Your task to perform on an android device: uninstall "Google Find My Device" Image 0: 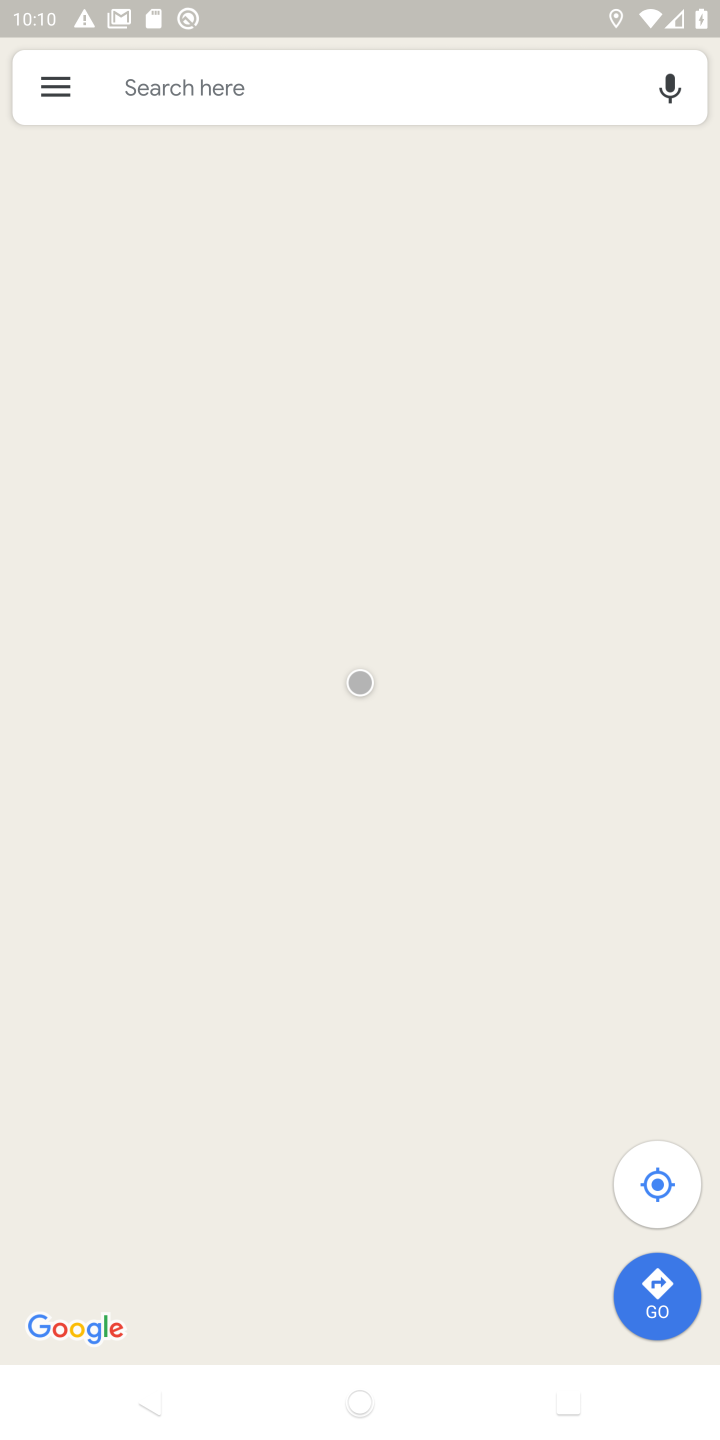
Step 0: press home button
Your task to perform on an android device: uninstall "Google Find My Device" Image 1: 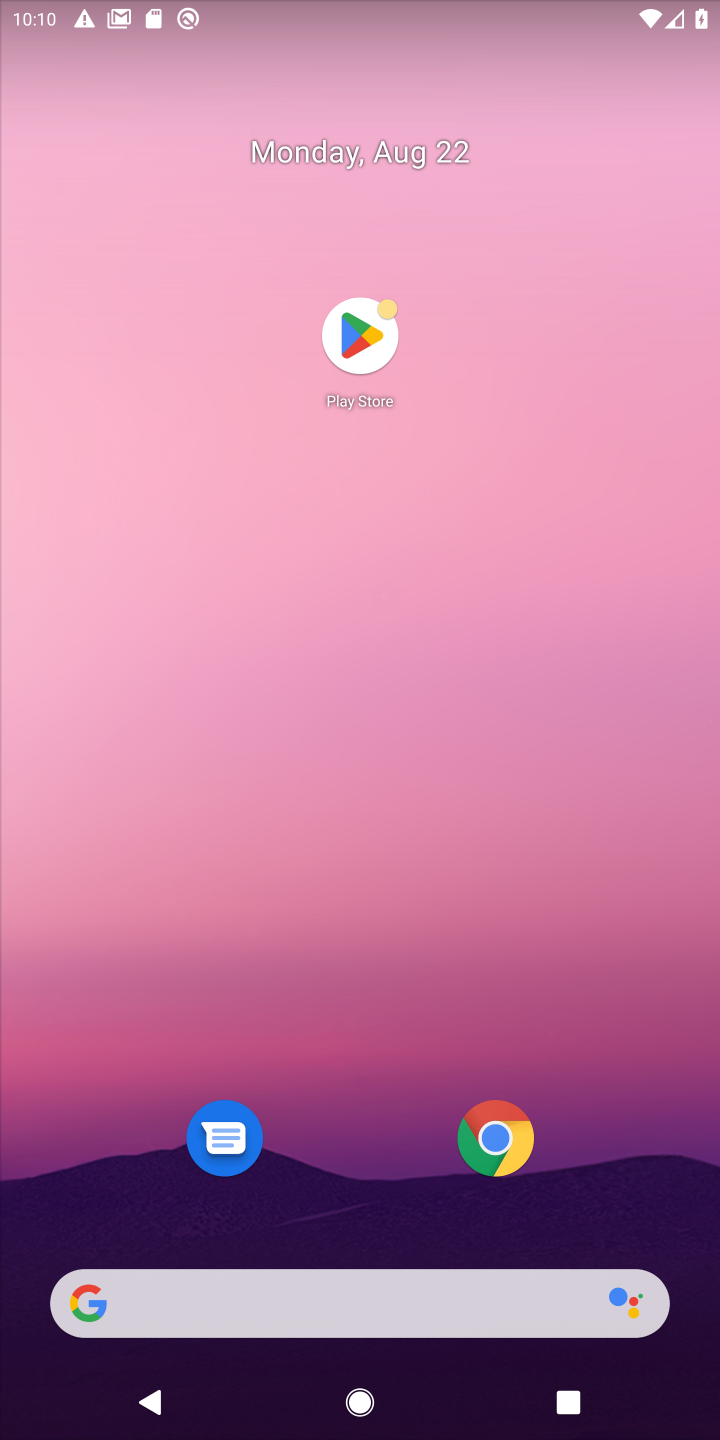
Step 1: click (339, 353)
Your task to perform on an android device: uninstall "Google Find My Device" Image 2: 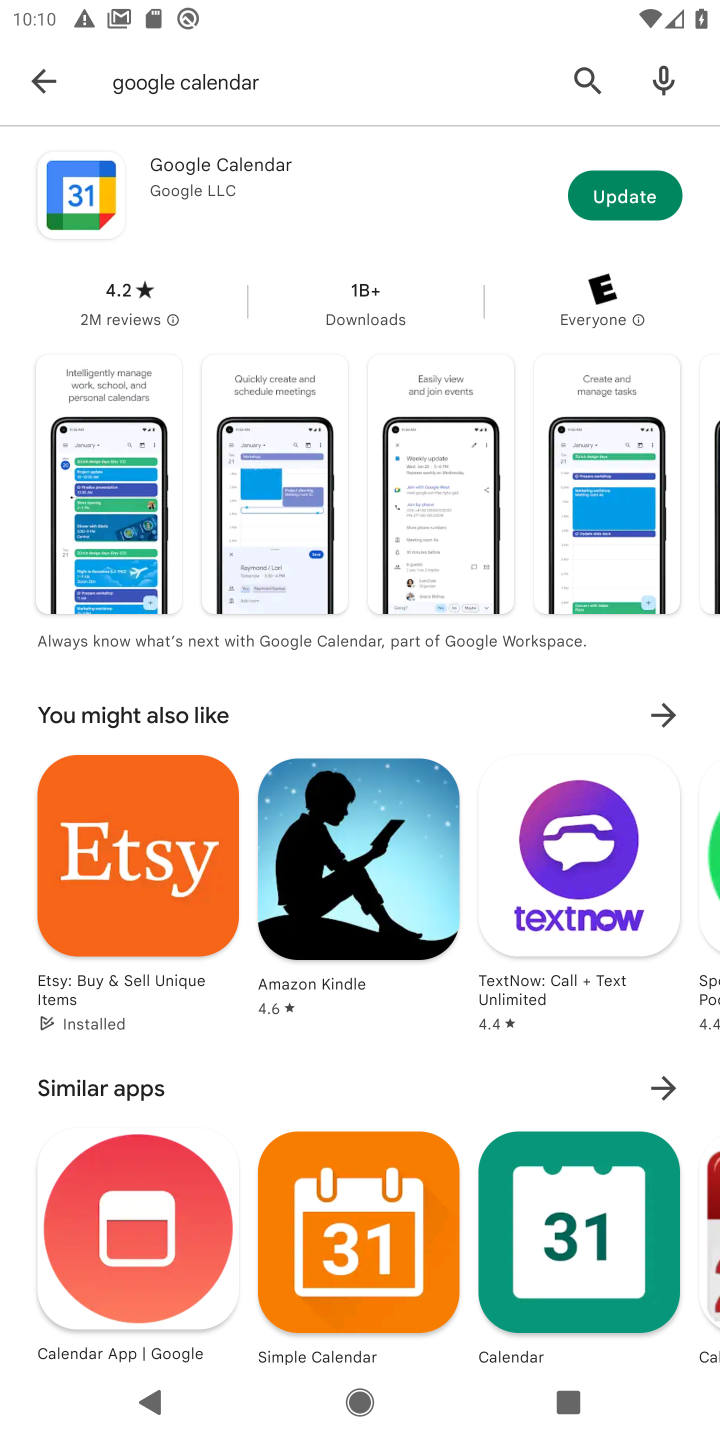
Step 2: click (593, 75)
Your task to perform on an android device: uninstall "Google Find My Device" Image 3: 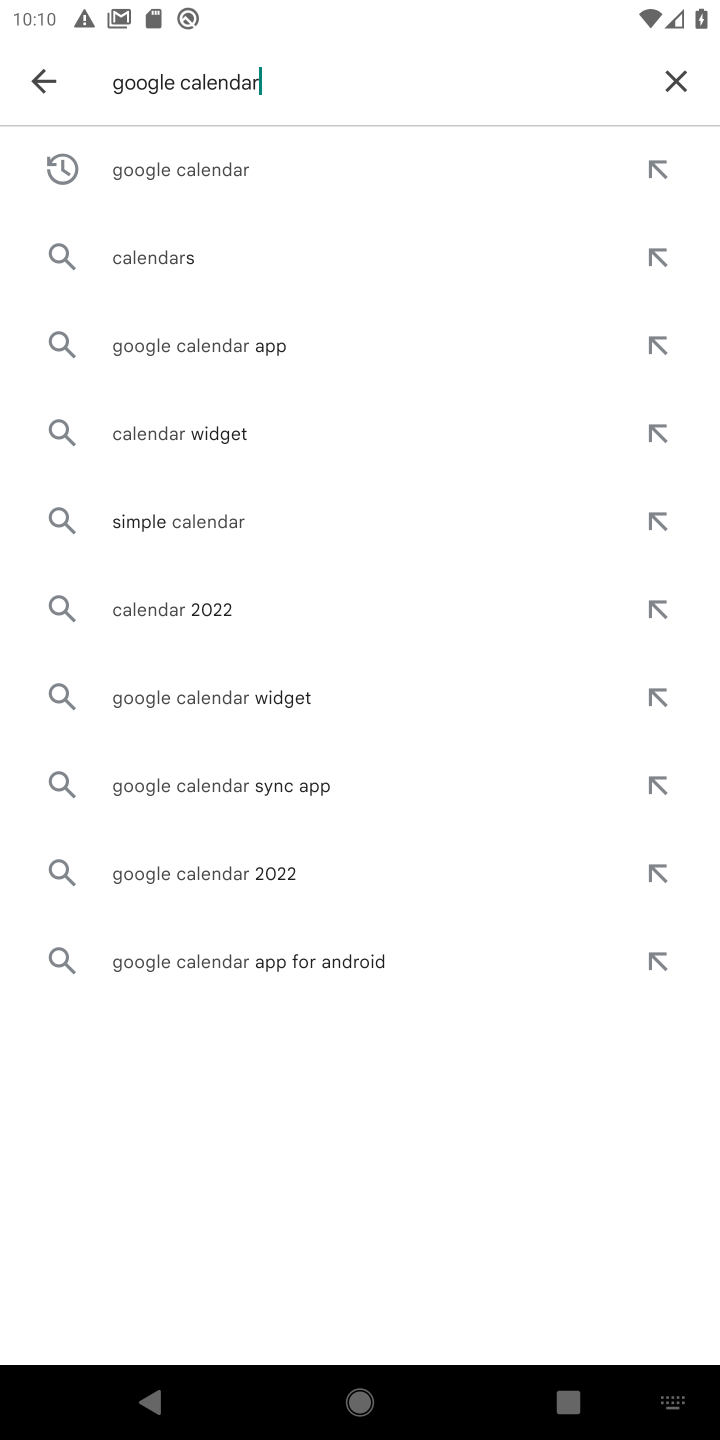
Step 3: click (674, 78)
Your task to perform on an android device: uninstall "Google Find My Device" Image 4: 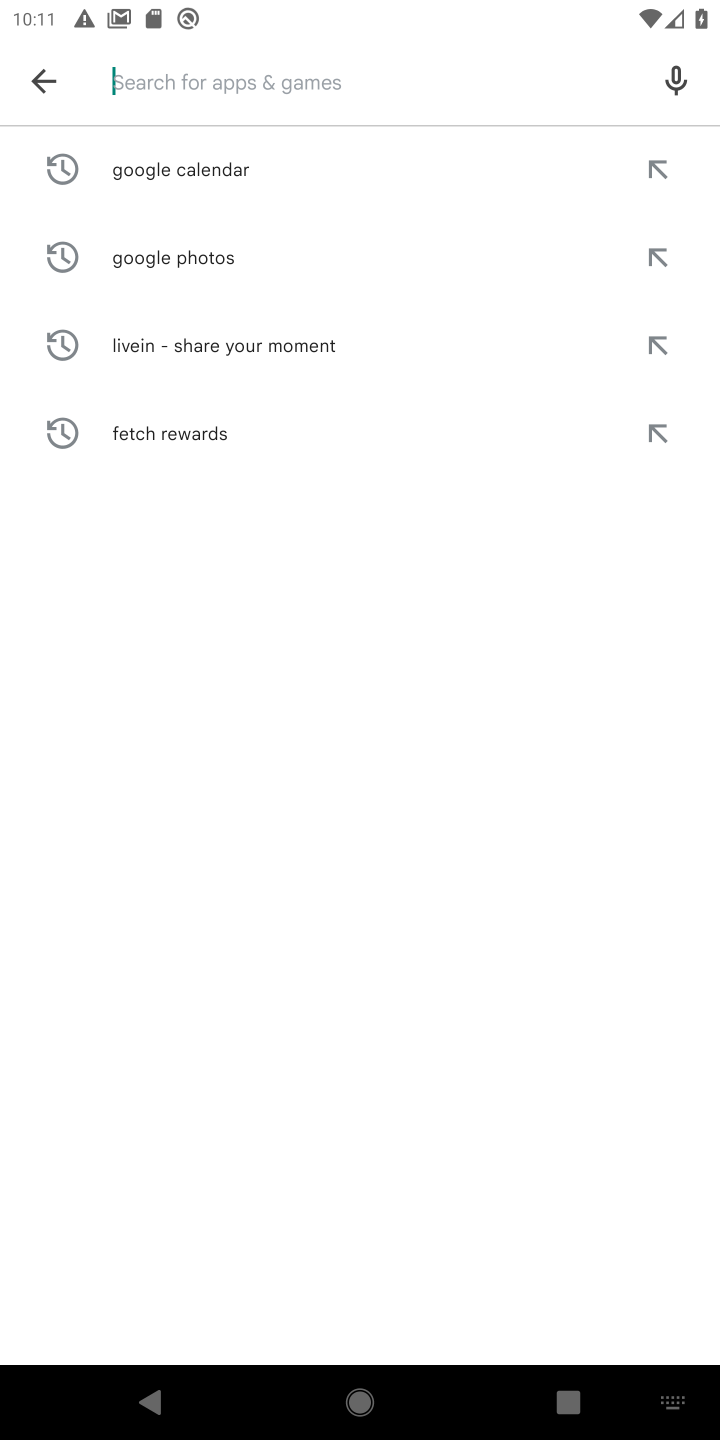
Step 4: type "google find my device"
Your task to perform on an android device: uninstall "Google Find My Device" Image 5: 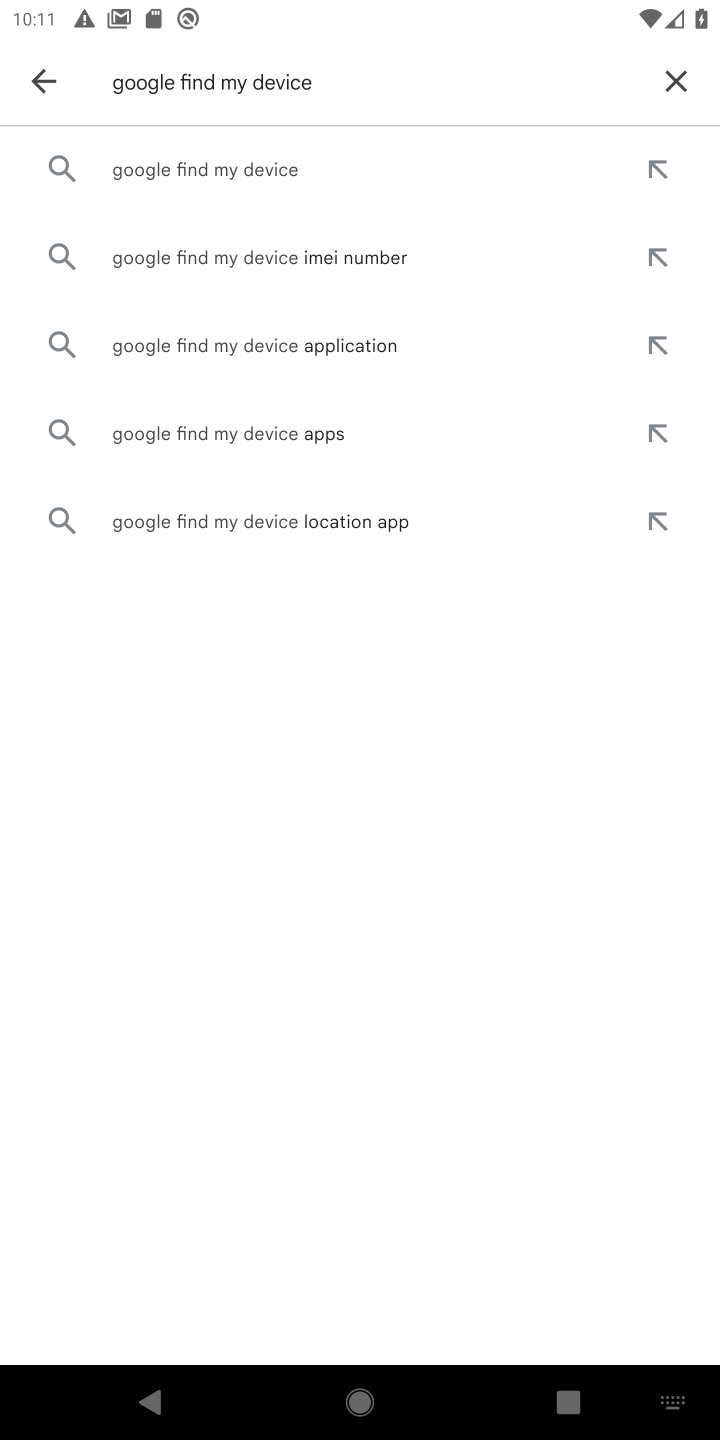
Step 5: click (204, 169)
Your task to perform on an android device: uninstall "Google Find My Device" Image 6: 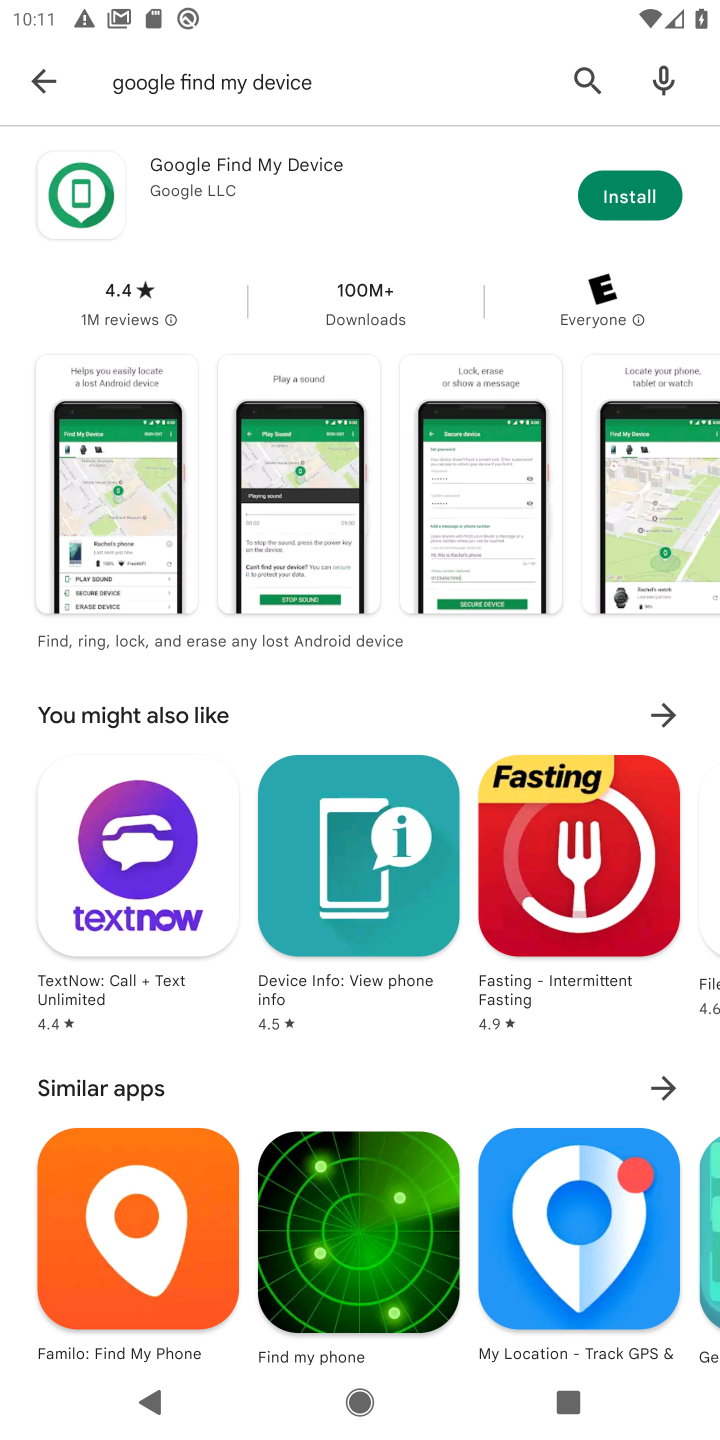
Step 6: task complete